Your task to perform on an android device: Open Google Maps Image 0: 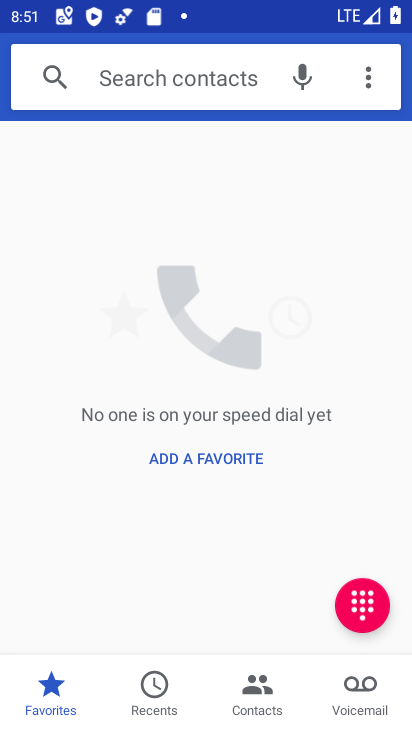
Step 0: press home button
Your task to perform on an android device: Open Google Maps Image 1: 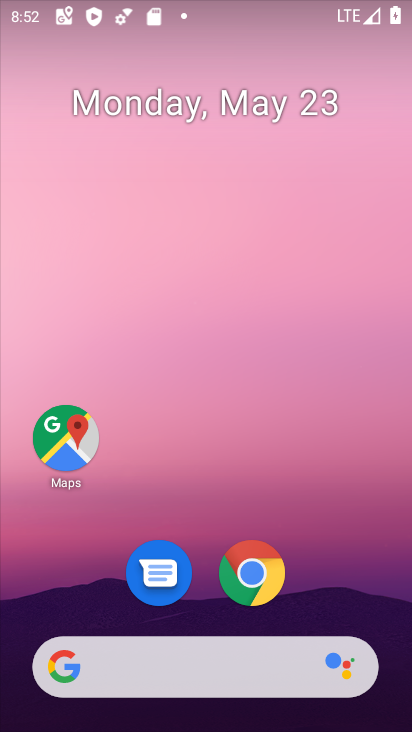
Step 1: click (61, 437)
Your task to perform on an android device: Open Google Maps Image 2: 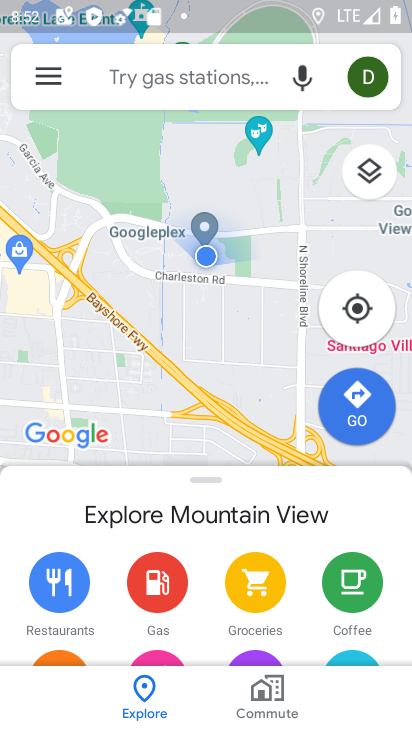
Step 2: task complete